Your task to perform on an android device: Go to Wikipedia Image 0: 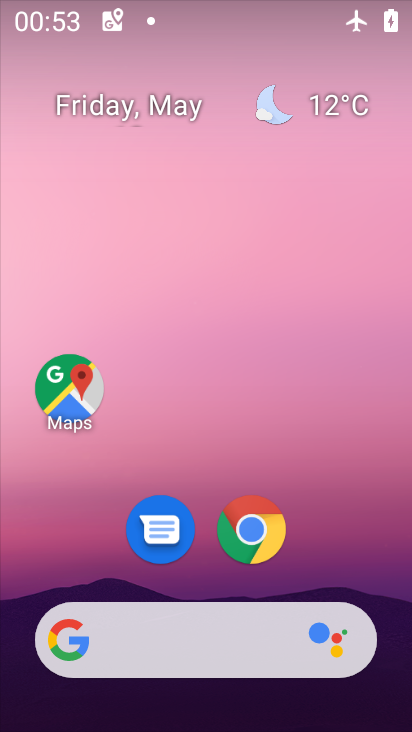
Step 0: drag from (286, 548) to (304, 270)
Your task to perform on an android device: Go to Wikipedia Image 1: 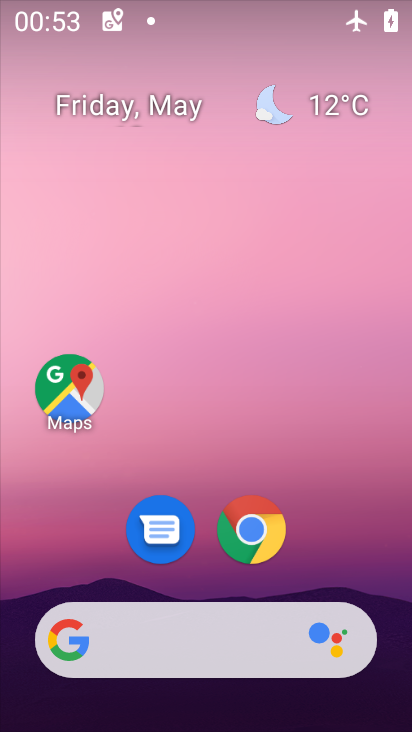
Step 1: drag from (318, 545) to (309, 128)
Your task to perform on an android device: Go to Wikipedia Image 2: 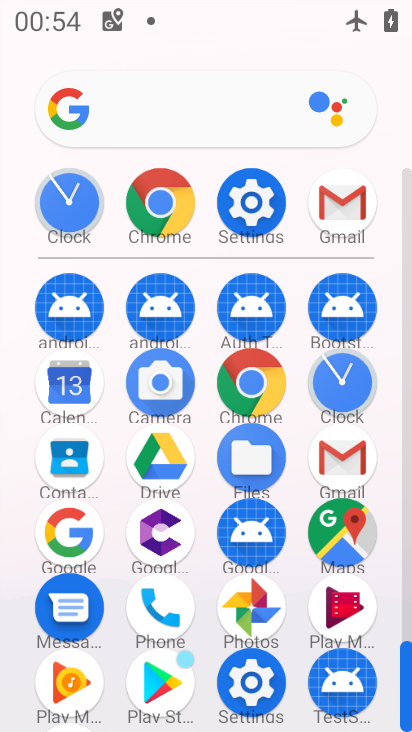
Step 2: click (147, 209)
Your task to perform on an android device: Go to Wikipedia Image 3: 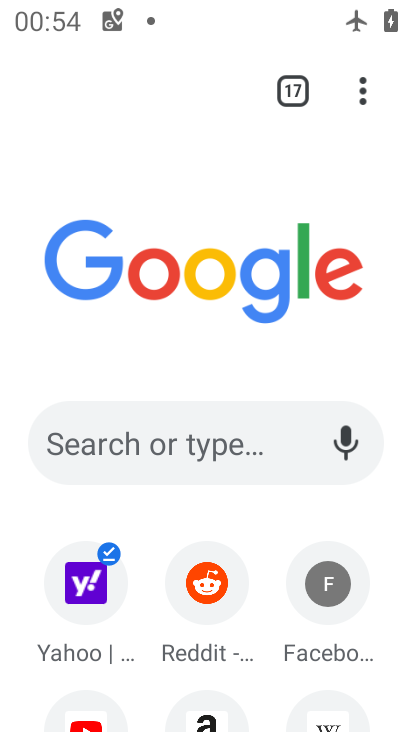
Step 3: drag from (255, 623) to (285, 230)
Your task to perform on an android device: Go to Wikipedia Image 4: 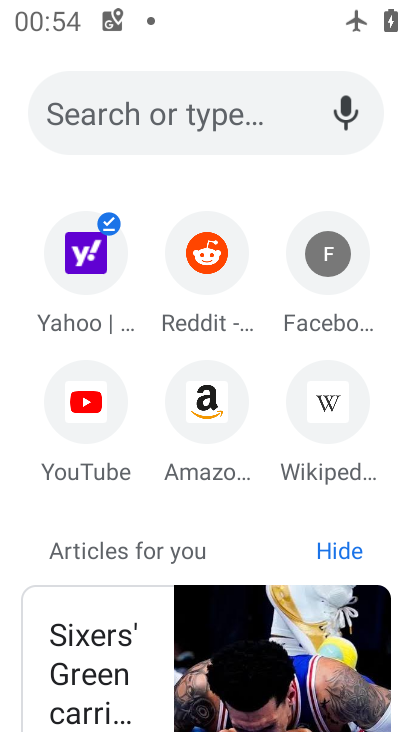
Step 4: click (324, 404)
Your task to perform on an android device: Go to Wikipedia Image 5: 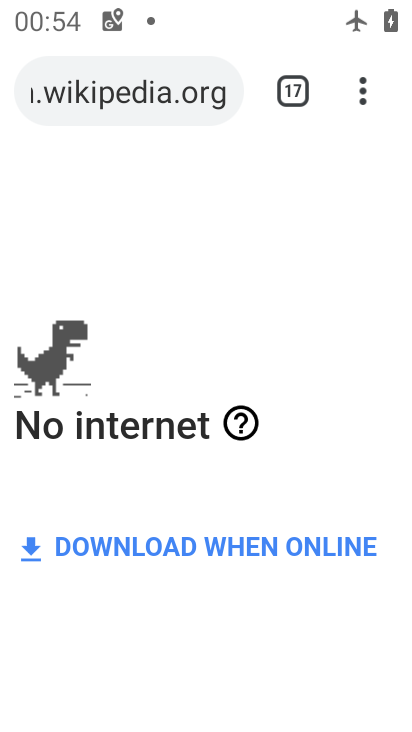
Step 5: task complete